Your task to perform on an android device: change text size in settings app Image 0: 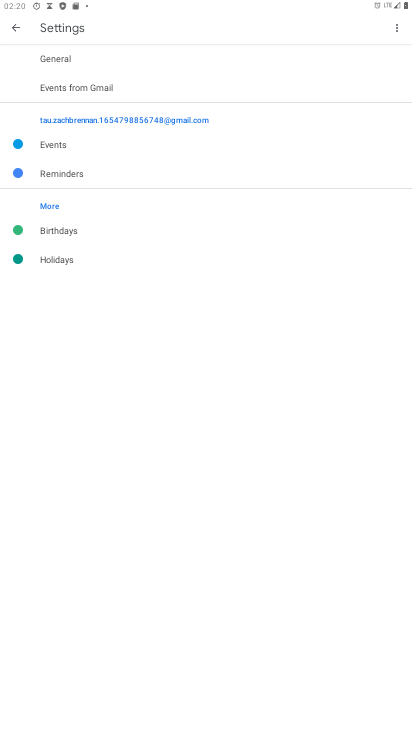
Step 0: press home button
Your task to perform on an android device: change text size in settings app Image 1: 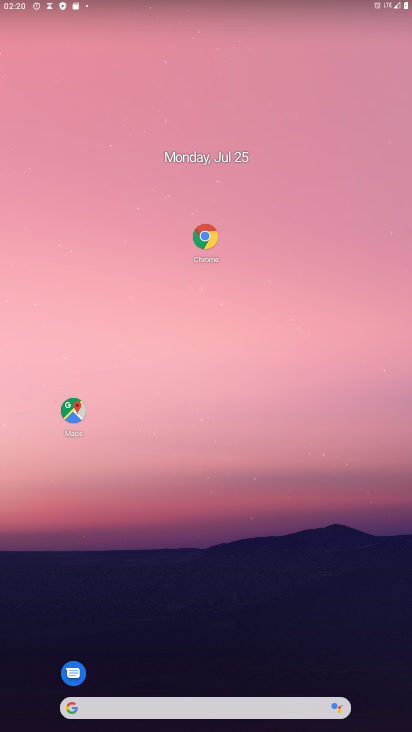
Step 1: drag from (260, 699) to (342, 3)
Your task to perform on an android device: change text size in settings app Image 2: 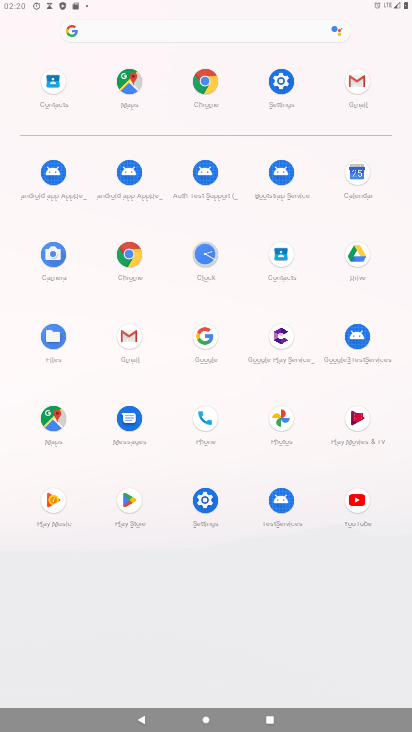
Step 2: click (280, 81)
Your task to perform on an android device: change text size in settings app Image 3: 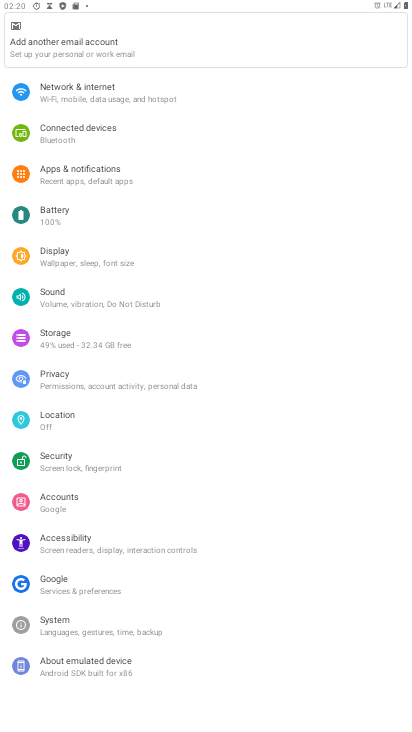
Step 3: click (96, 553)
Your task to perform on an android device: change text size in settings app Image 4: 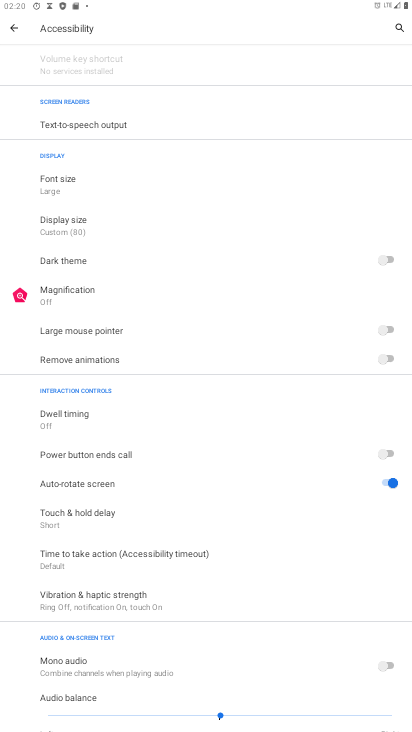
Step 4: click (70, 191)
Your task to perform on an android device: change text size in settings app Image 5: 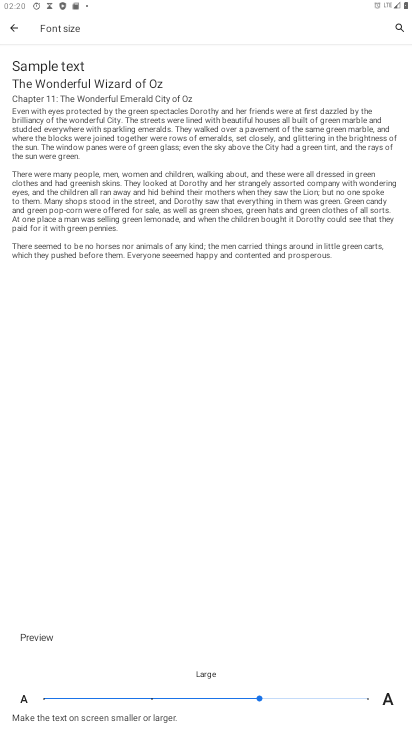
Step 5: click (339, 697)
Your task to perform on an android device: change text size in settings app Image 6: 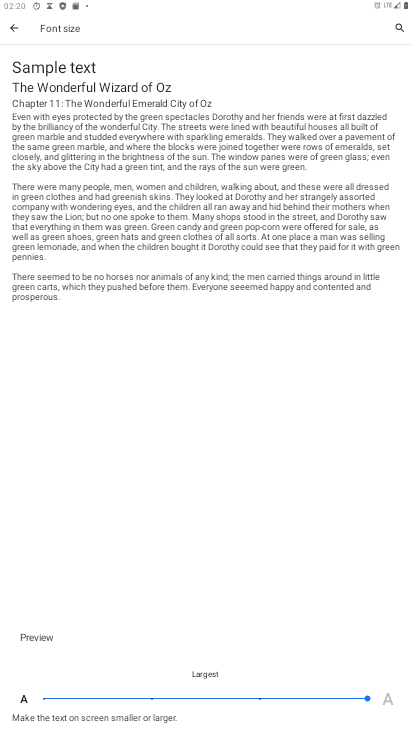
Step 6: task complete